Your task to perform on an android device: toggle sleep mode Image 0: 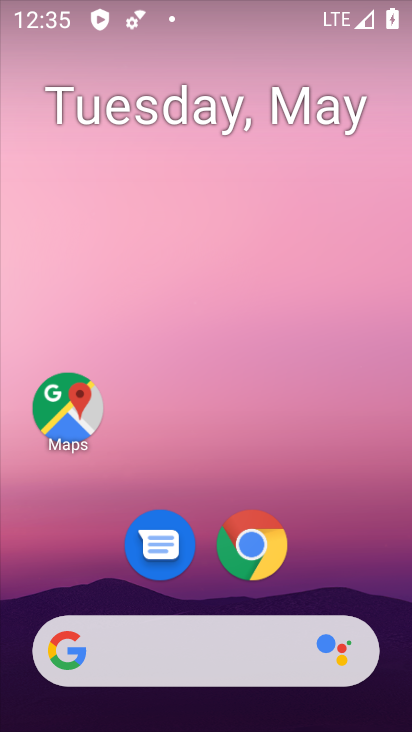
Step 0: drag from (330, 532) to (334, 207)
Your task to perform on an android device: toggle sleep mode Image 1: 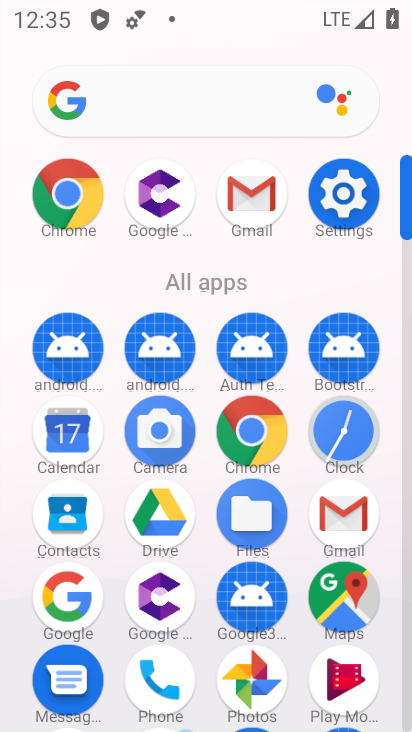
Step 1: click (339, 204)
Your task to perform on an android device: toggle sleep mode Image 2: 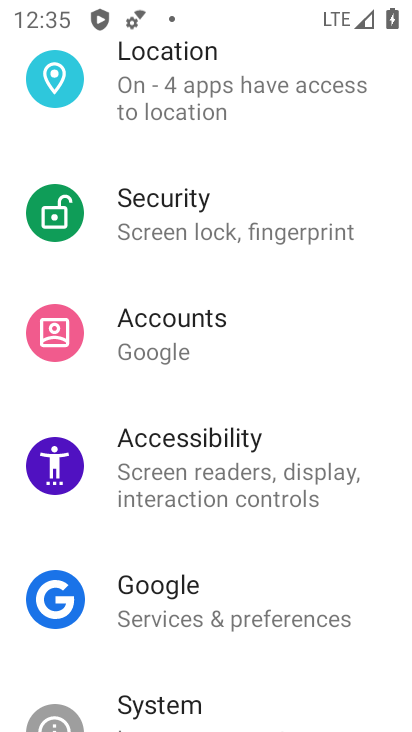
Step 2: drag from (267, 126) to (286, 474)
Your task to perform on an android device: toggle sleep mode Image 3: 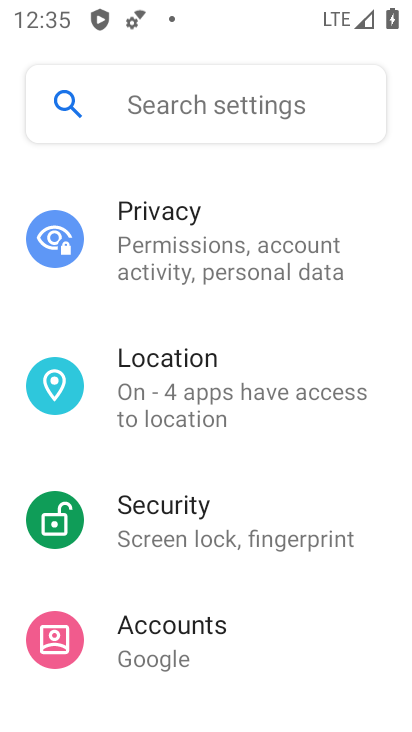
Step 3: click (241, 116)
Your task to perform on an android device: toggle sleep mode Image 4: 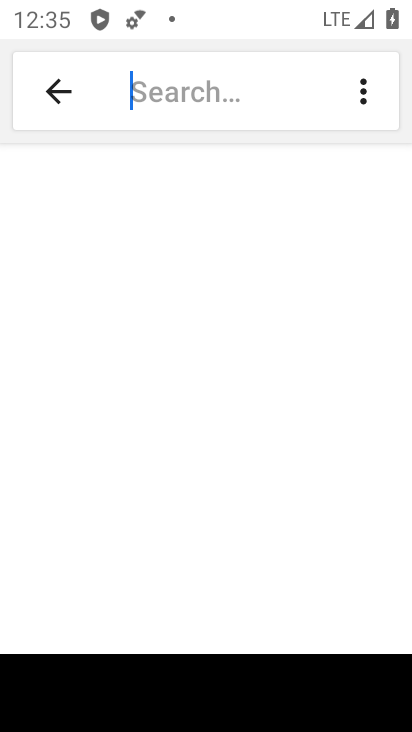
Step 4: type "sleep mode"
Your task to perform on an android device: toggle sleep mode Image 5: 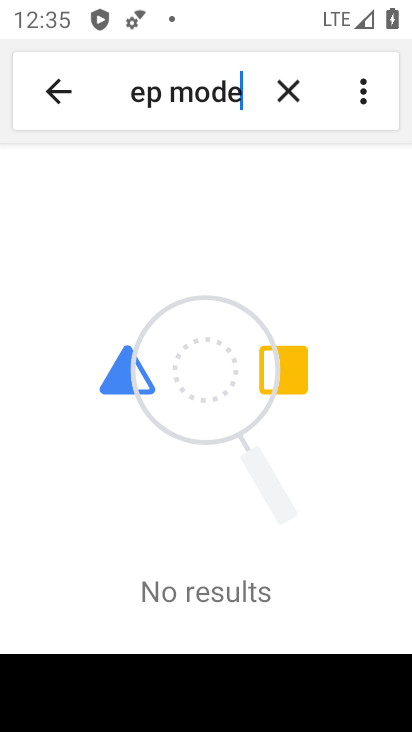
Step 5: task complete